Your task to perform on an android device: Open Google Image 0: 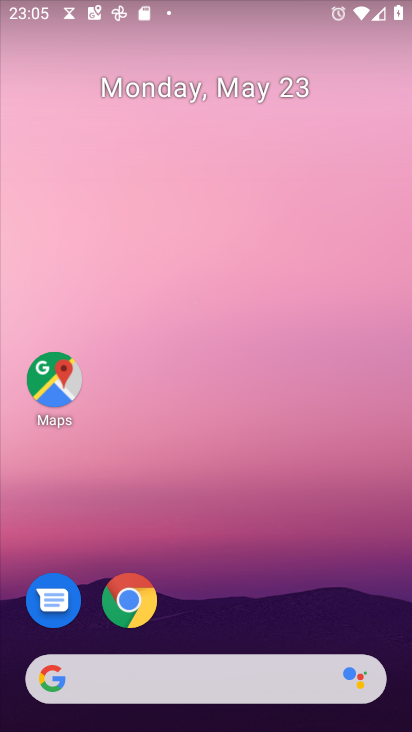
Step 0: drag from (204, 715) to (205, 124)
Your task to perform on an android device: Open Google Image 1: 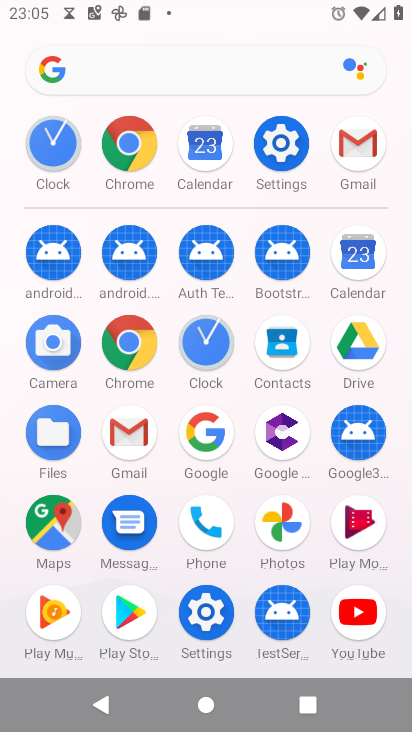
Step 1: click (204, 438)
Your task to perform on an android device: Open Google Image 2: 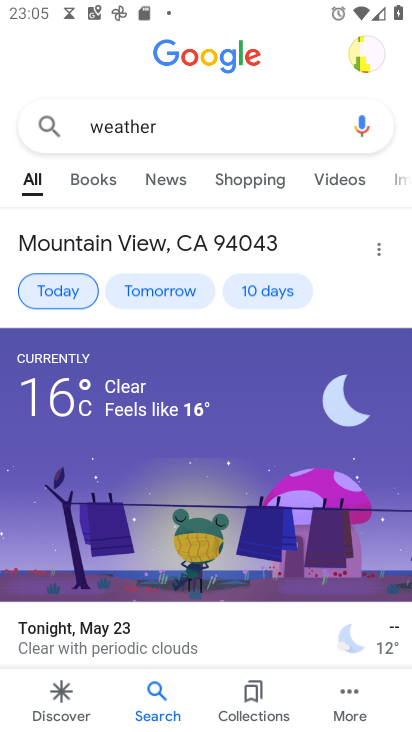
Step 2: task complete